Your task to perform on an android device: toggle wifi Image 0: 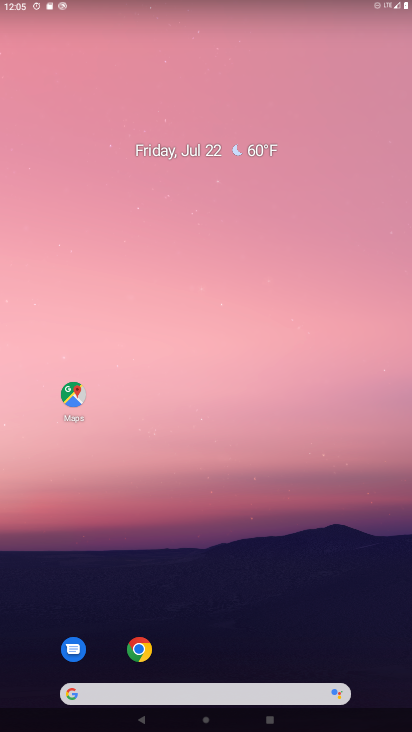
Step 0: drag from (354, 460) to (140, 441)
Your task to perform on an android device: toggle wifi Image 1: 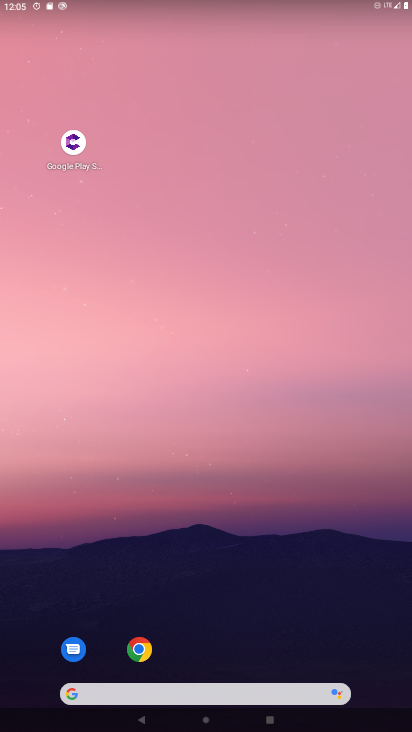
Step 1: drag from (83, 410) to (289, 420)
Your task to perform on an android device: toggle wifi Image 2: 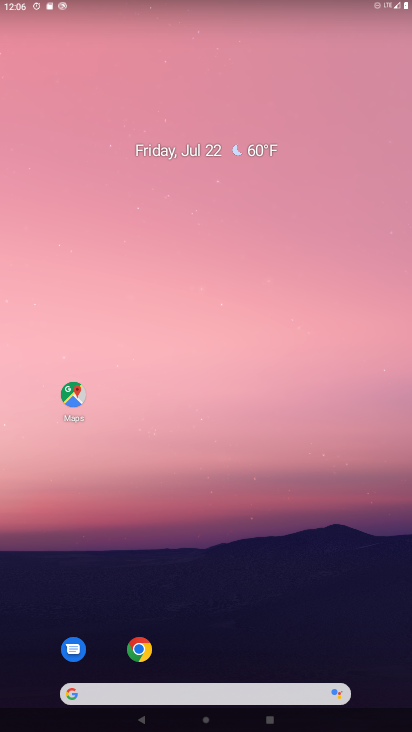
Step 2: drag from (383, 706) to (254, 82)
Your task to perform on an android device: toggle wifi Image 3: 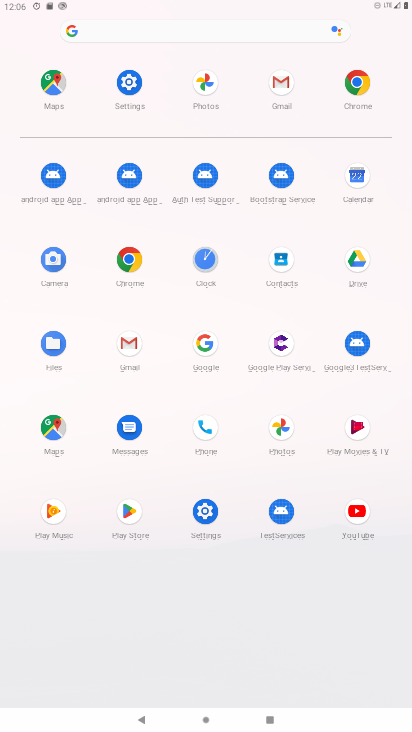
Step 3: drag from (134, 87) to (147, 355)
Your task to perform on an android device: toggle wifi Image 4: 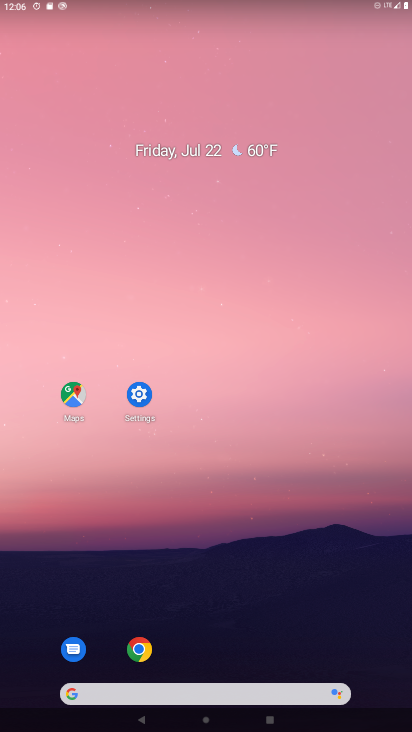
Step 4: click (140, 389)
Your task to perform on an android device: toggle wifi Image 5: 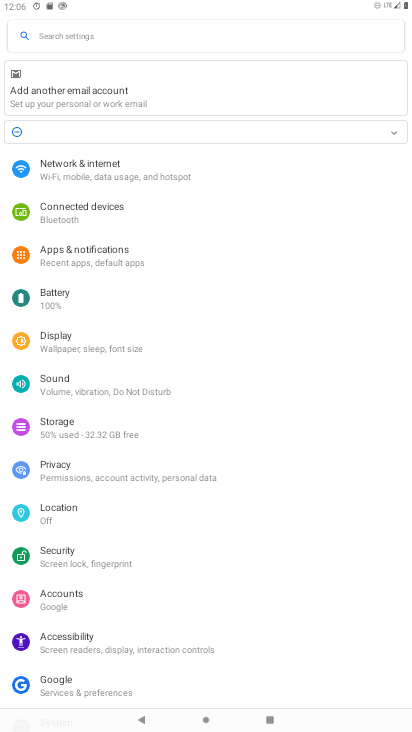
Step 5: click (98, 170)
Your task to perform on an android device: toggle wifi Image 6: 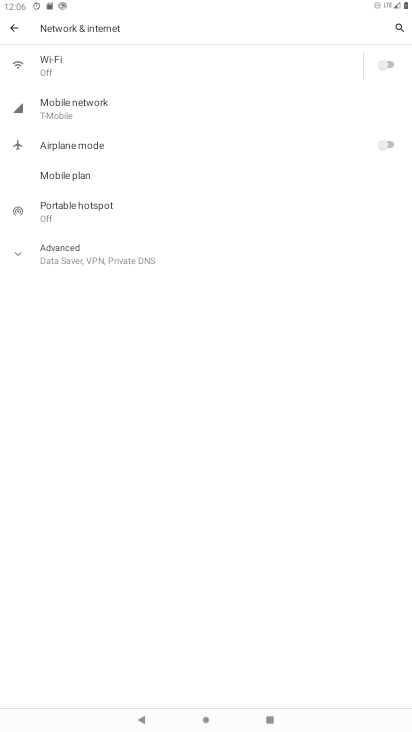
Step 6: click (391, 64)
Your task to perform on an android device: toggle wifi Image 7: 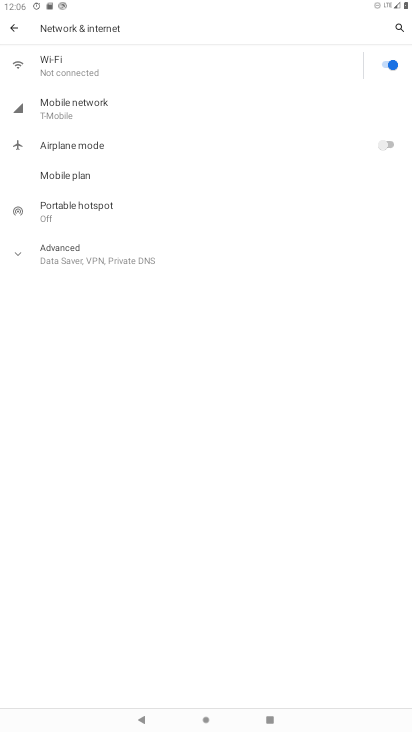
Step 7: task complete